Your task to perform on an android device: Do I have any events this weekend? Image 0: 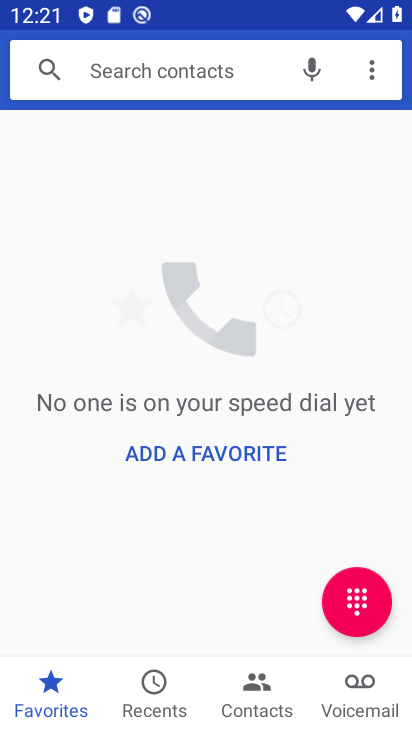
Step 0: press home button
Your task to perform on an android device: Do I have any events this weekend? Image 1: 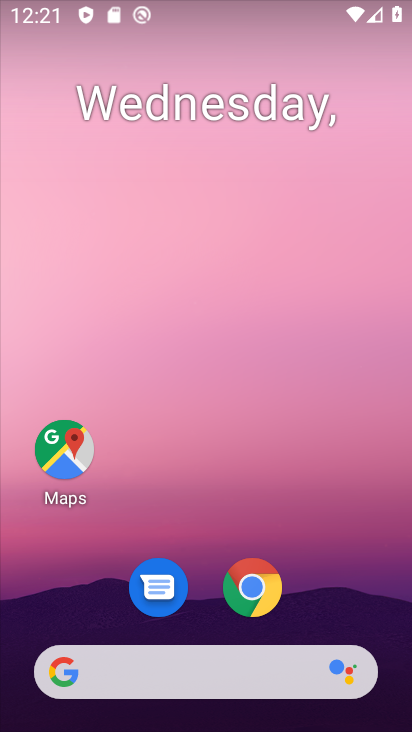
Step 1: drag from (316, 611) to (262, 155)
Your task to perform on an android device: Do I have any events this weekend? Image 2: 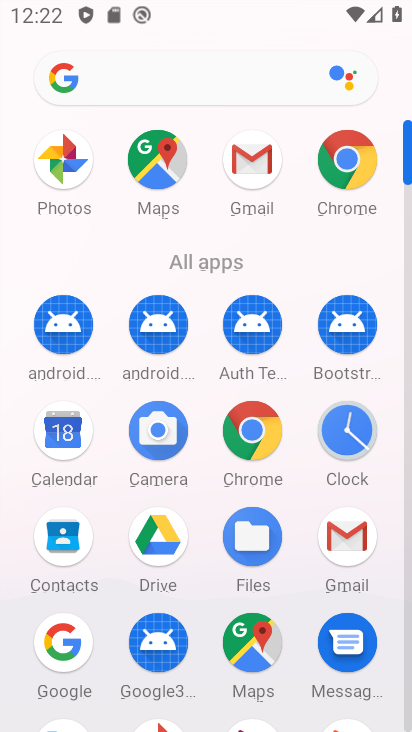
Step 2: click (75, 455)
Your task to perform on an android device: Do I have any events this weekend? Image 3: 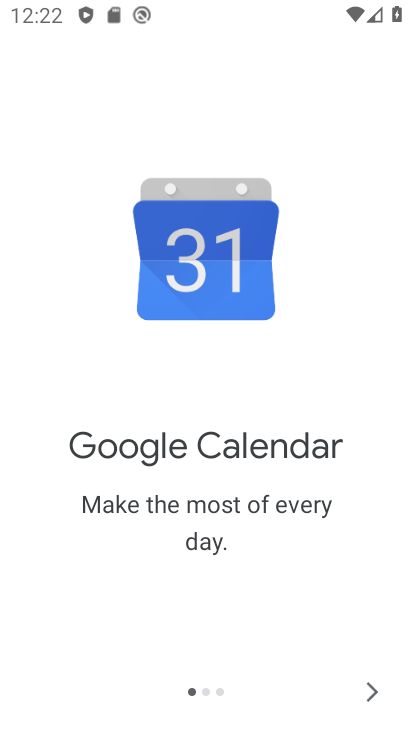
Step 3: click (369, 693)
Your task to perform on an android device: Do I have any events this weekend? Image 4: 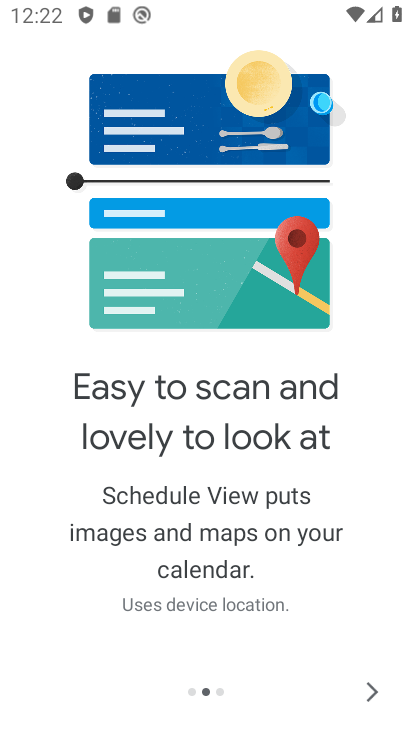
Step 4: click (372, 693)
Your task to perform on an android device: Do I have any events this weekend? Image 5: 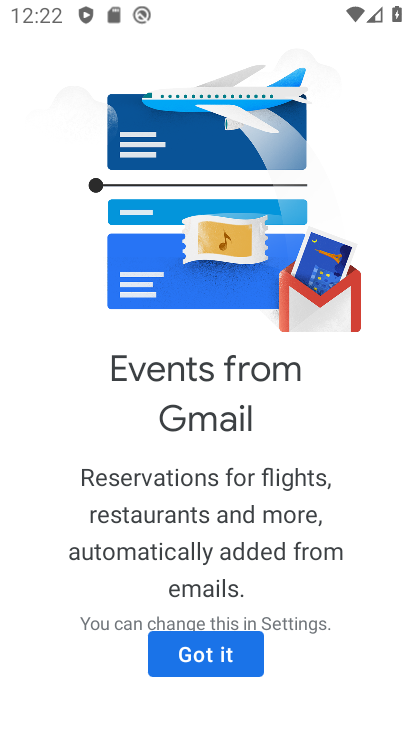
Step 5: click (232, 652)
Your task to perform on an android device: Do I have any events this weekend? Image 6: 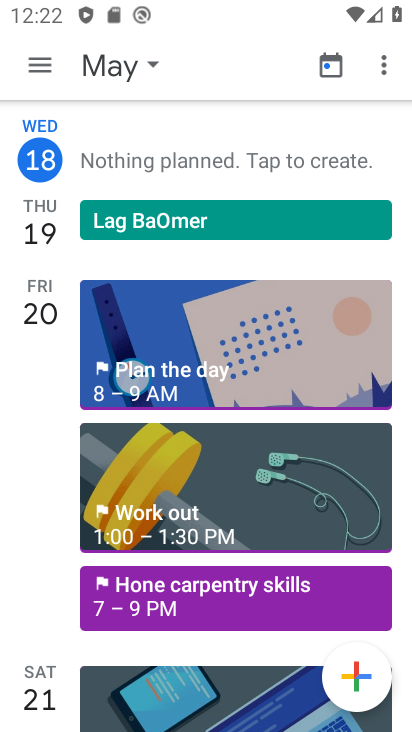
Step 6: task complete